Your task to perform on an android device: Open Android settings Image 0: 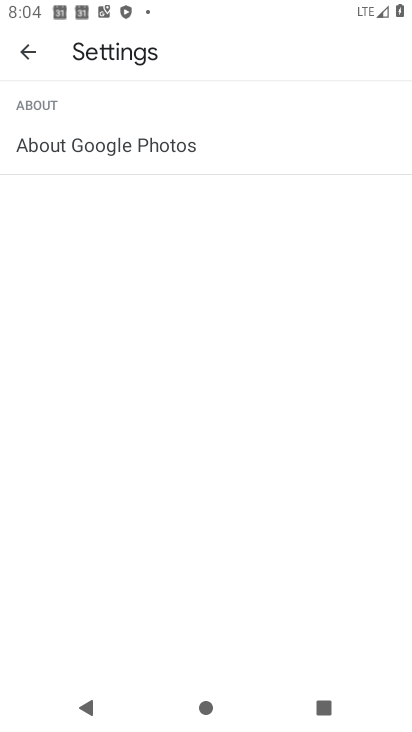
Step 0: press home button
Your task to perform on an android device: Open Android settings Image 1: 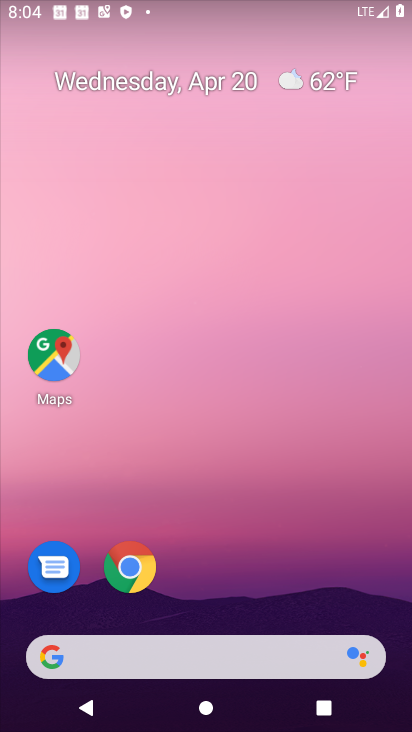
Step 1: drag from (348, 471) to (408, 293)
Your task to perform on an android device: Open Android settings Image 2: 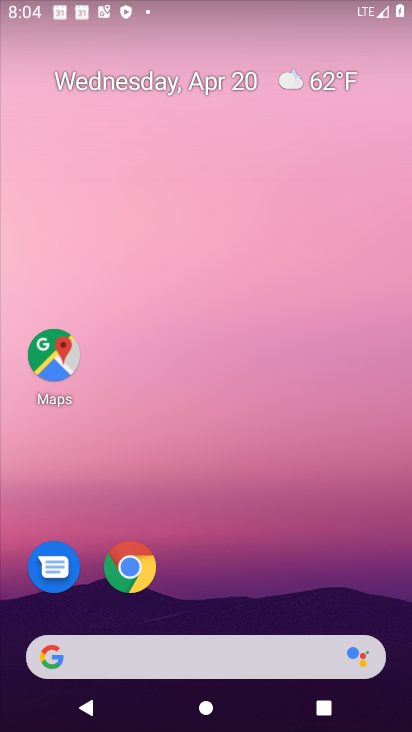
Step 2: drag from (220, 549) to (172, 115)
Your task to perform on an android device: Open Android settings Image 3: 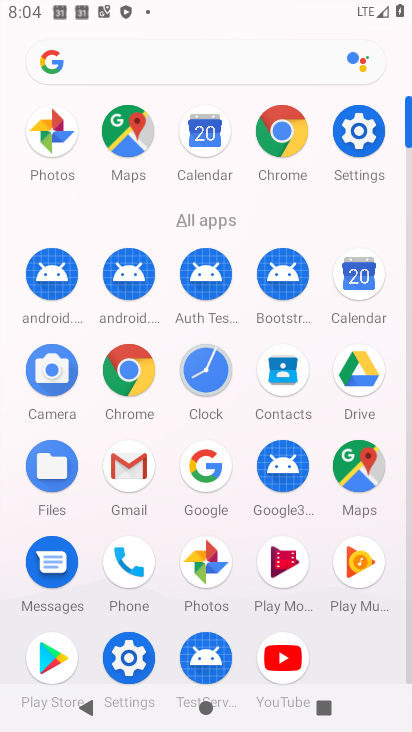
Step 3: click (370, 135)
Your task to perform on an android device: Open Android settings Image 4: 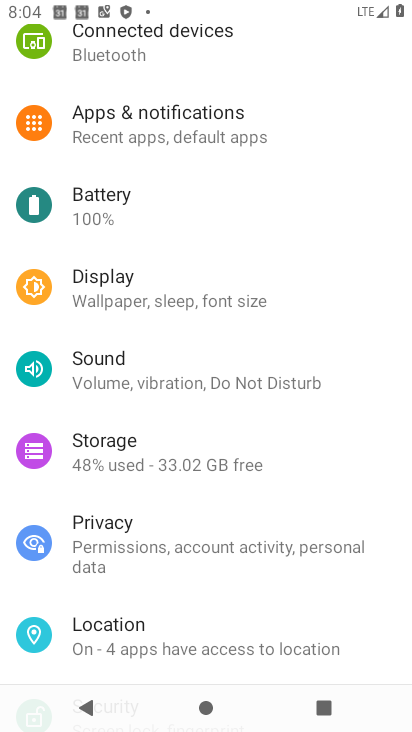
Step 4: drag from (278, 617) to (276, 174)
Your task to perform on an android device: Open Android settings Image 5: 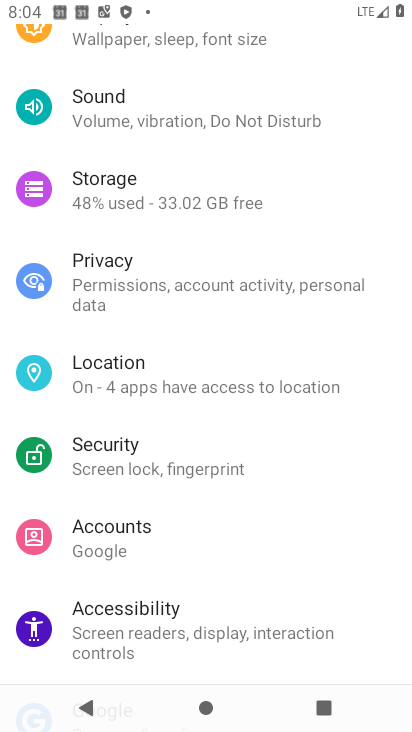
Step 5: drag from (224, 565) to (233, 246)
Your task to perform on an android device: Open Android settings Image 6: 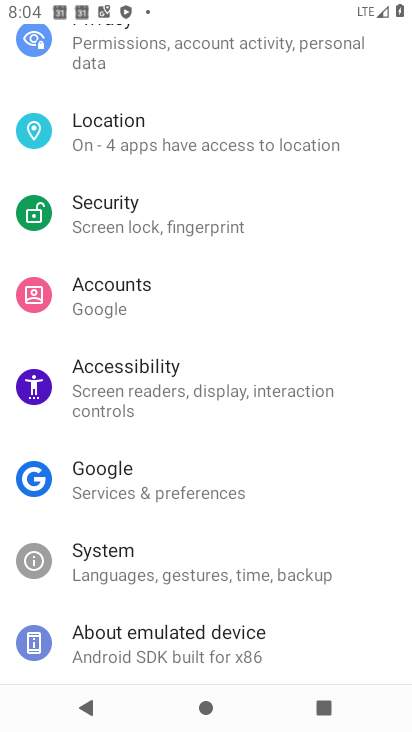
Step 6: drag from (240, 596) to (294, 193)
Your task to perform on an android device: Open Android settings Image 7: 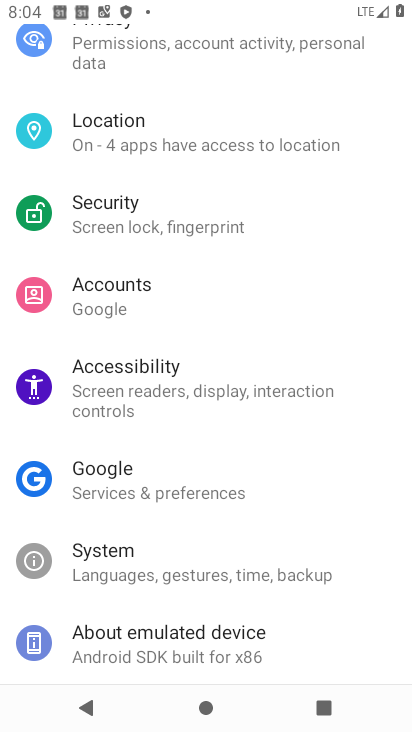
Step 7: click (152, 648)
Your task to perform on an android device: Open Android settings Image 8: 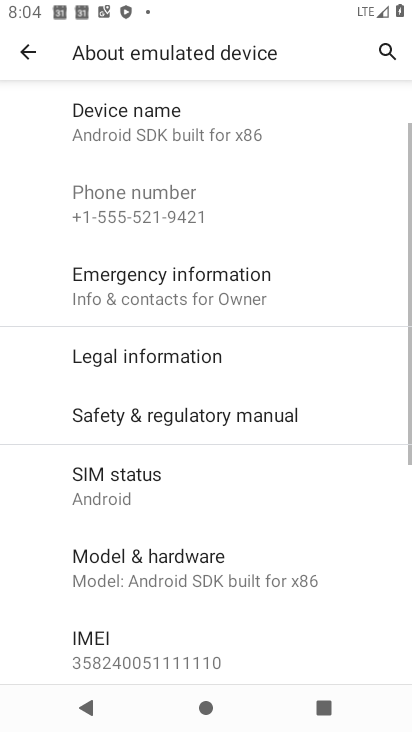
Step 8: task complete